Your task to perform on an android device: turn off picture-in-picture Image 0: 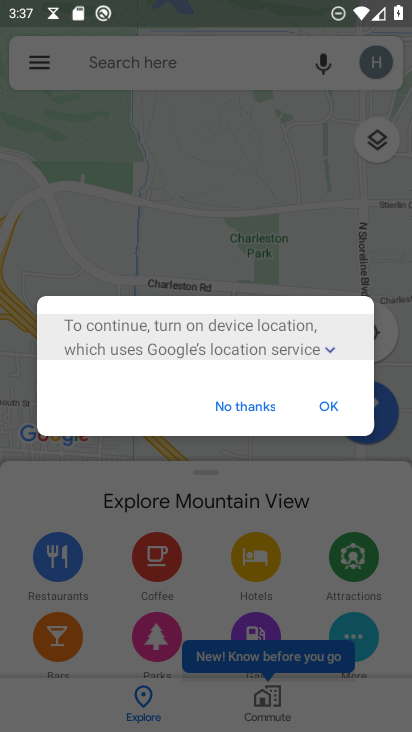
Step 0: press home button
Your task to perform on an android device: turn off picture-in-picture Image 1: 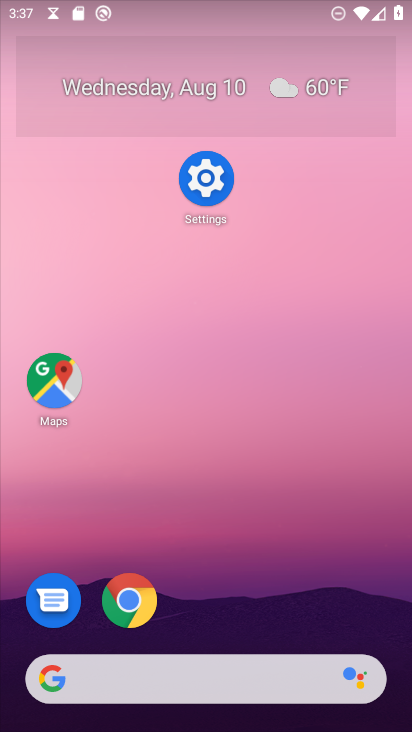
Step 1: click (128, 594)
Your task to perform on an android device: turn off picture-in-picture Image 2: 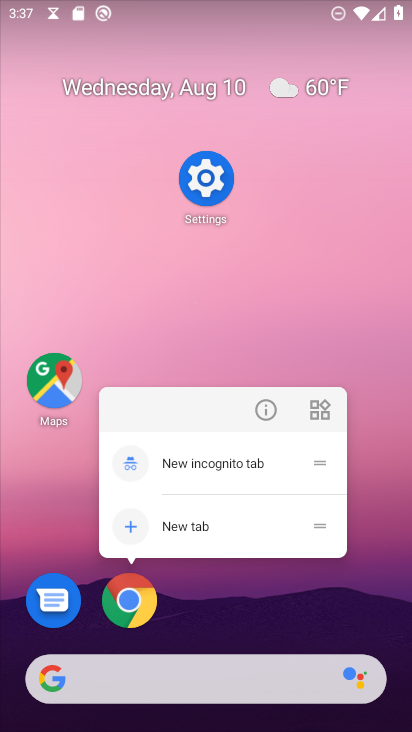
Step 2: click (270, 405)
Your task to perform on an android device: turn off picture-in-picture Image 3: 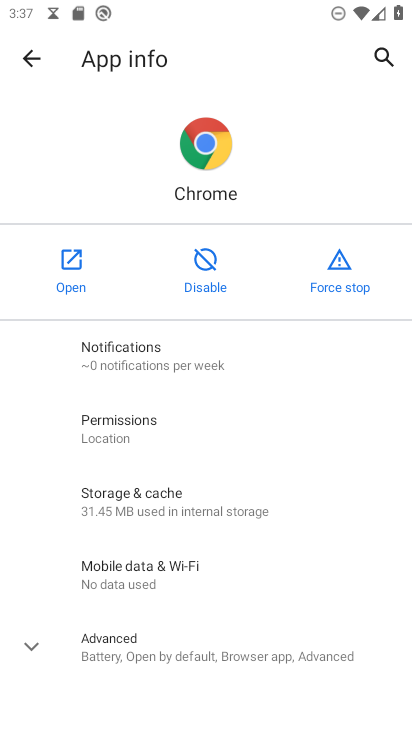
Step 3: click (120, 655)
Your task to perform on an android device: turn off picture-in-picture Image 4: 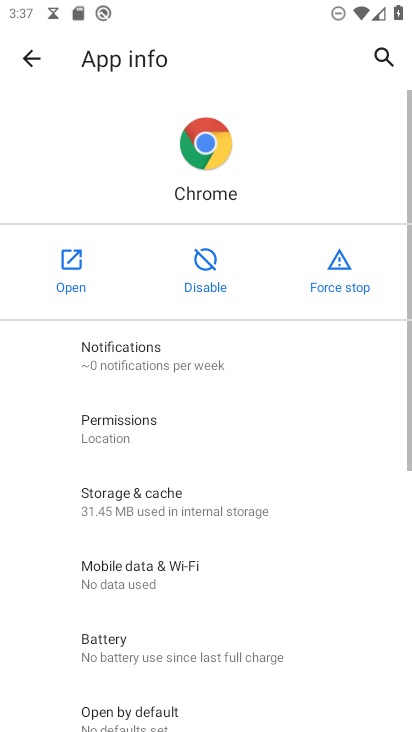
Step 4: drag from (353, 680) to (343, 247)
Your task to perform on an android device: turn off picture-in-picture Image 5: 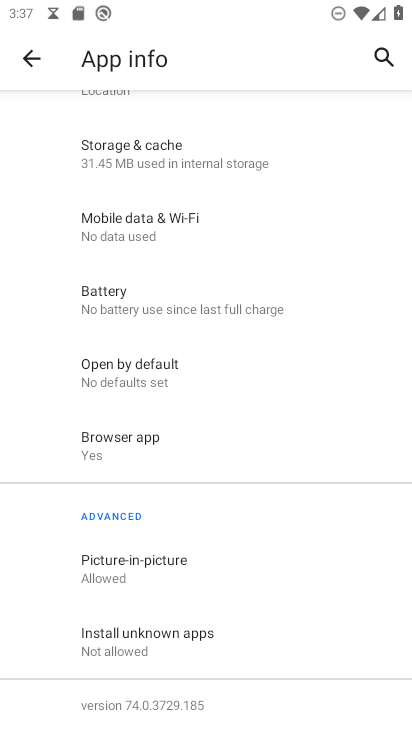
Step 5: click (120, 572)
Your task to perform on an android device: turn off picture-in-picture Image 6: 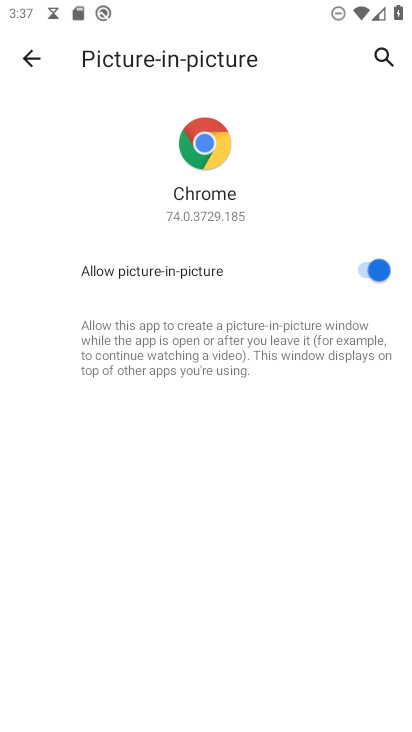
Step 6: click (376, 278)
Your task to perform on an android device: turn off picture-in-picture Image 7: 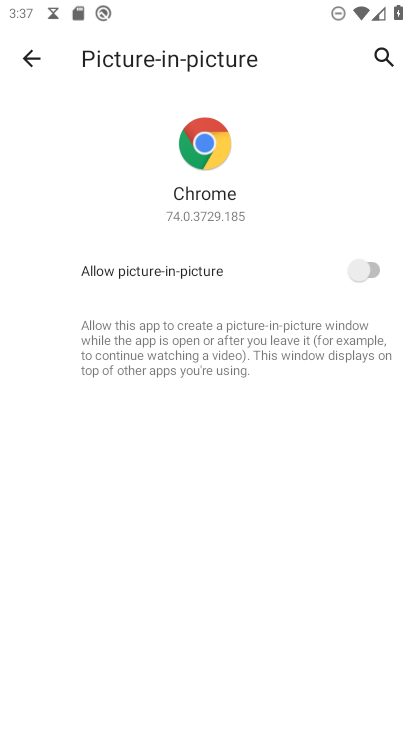
Step 7: task complete